Your task to perform on an android device: turn off translation in the chrome app Image 0: 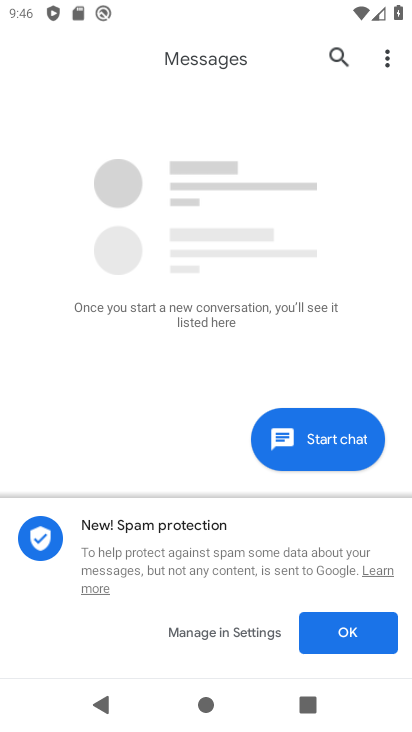
Step 0: press home button
Your task to perform on an android device: turn off translation in the chrome app Image 1: 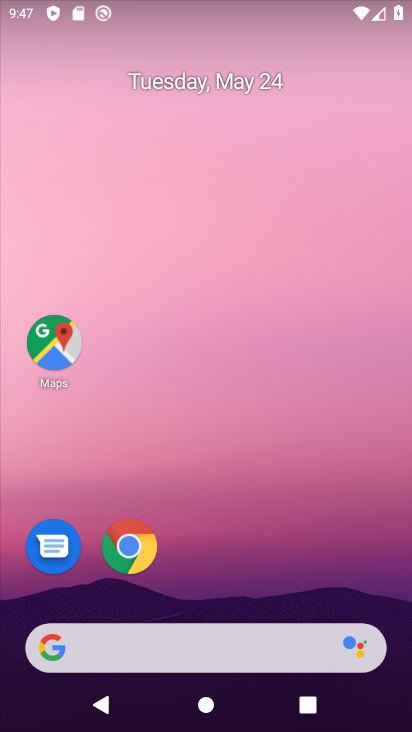
Step 1: click (126, 540)
Your task to perform on an android device: turn off translation in the chrome app Image 2: 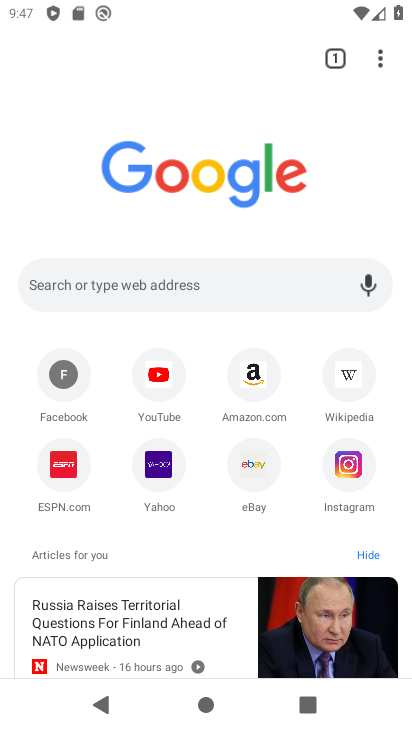
Step 2: click (378, 67)
Your task to perform on an android device: turn off translation in the chrome app Image 3: 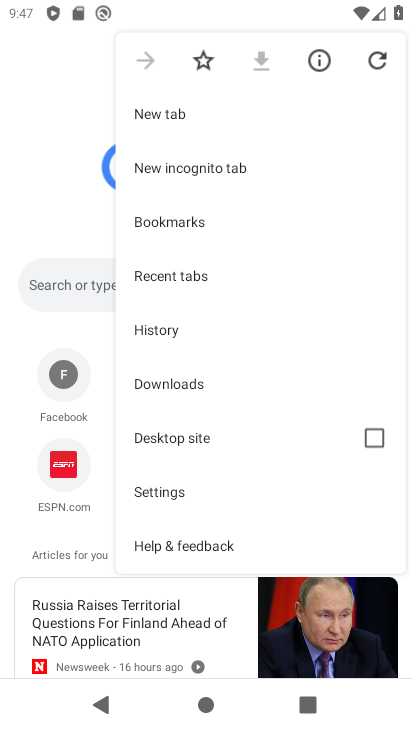
Step 3: click (223, 499)
Your task to perform on an android device: turn off translation in the chrome app Image 4: 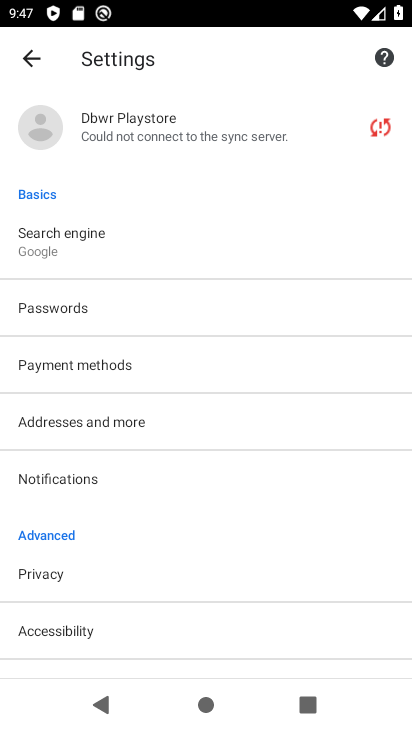
Step 4: drag from (212, 635) to (174, 140)
Your task to perform on an android device: turn off translation in the chrome app Image 5: 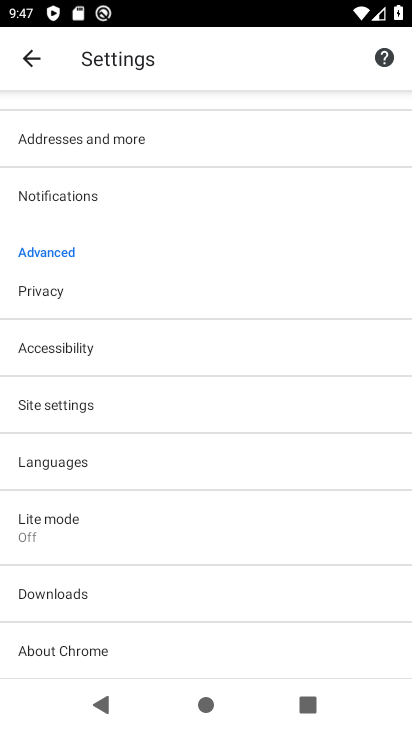
Step 5: click (148, 469)
Your task to perform on an android device: turn off translation in the chrome app Image 6: 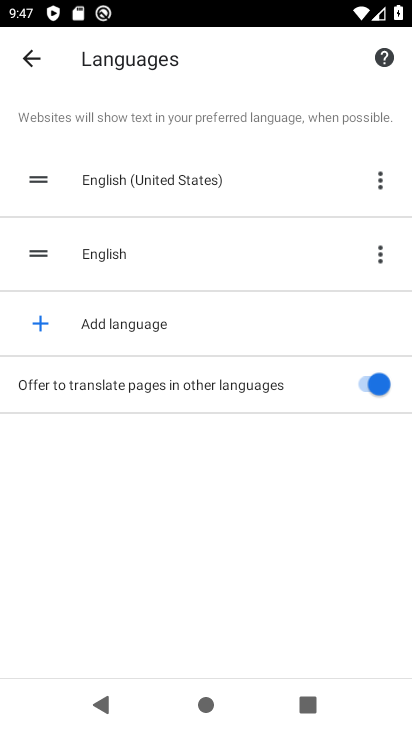
Step 6: click (377, 386)
Your task to perform on an android device: turn off translation in the chrome app Image 7: 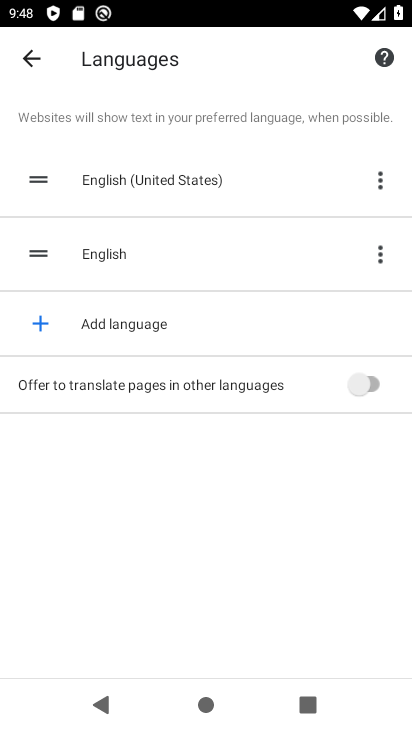
Step 7: task complete